Your task to perform on an android device: turn notification dots on Image 0: 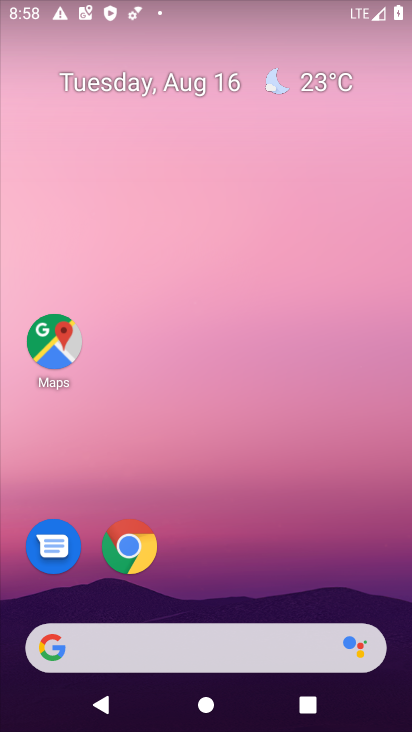
Step 0: drag from (221, 553) to (184, 14)
Your task to perform on an android device: turn notification dots on Image 1: 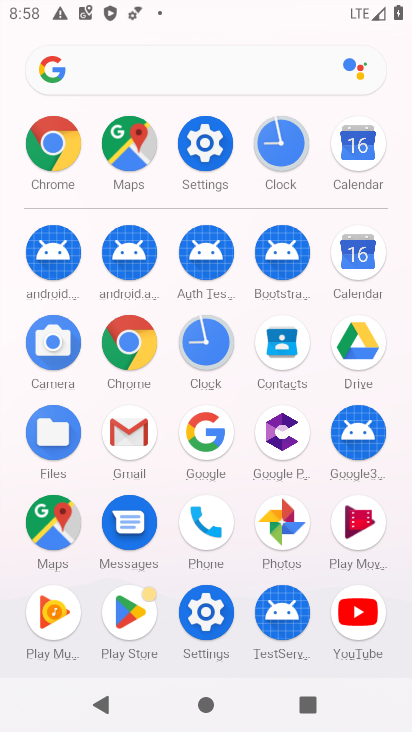
Step 1: click (204, 143)
Your task to perform on an android device: turn notification dots on Image 2: 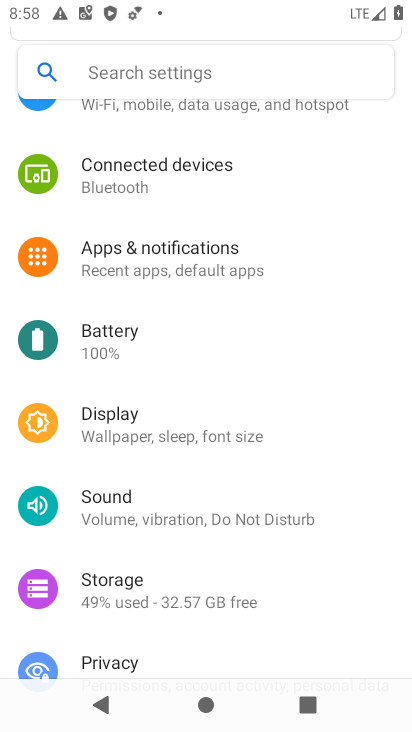
Step 2: click (214, 258)
Your task to perform on an android device: turn notification dots on Image 3: 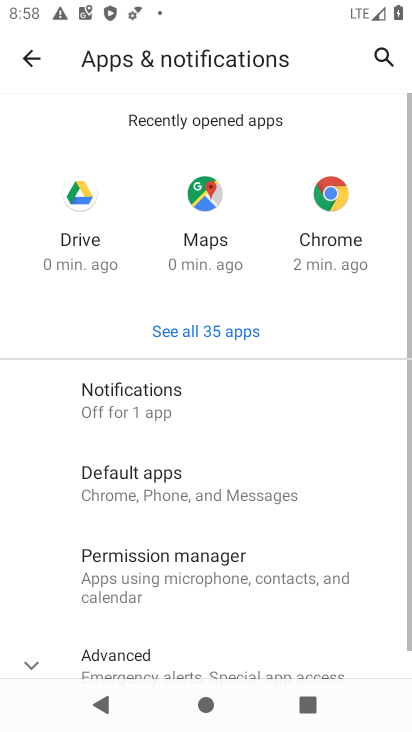
Step 3: click (152, 395)
Your task to perform on an android device: turn notification dots on Image 4: 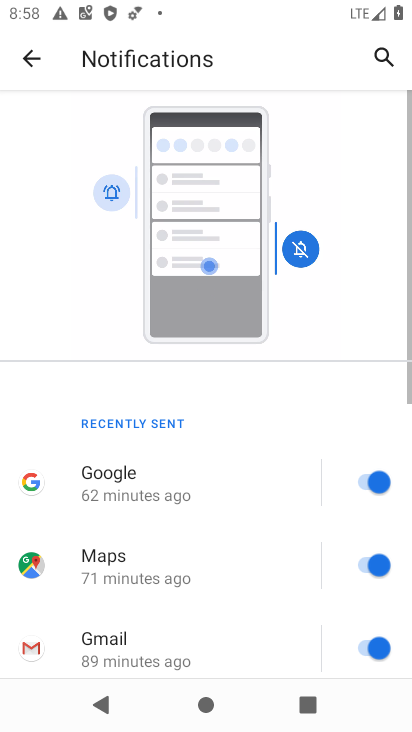
Step 4: drag from (248, 576) to (316, 16)
Your task to perform on an android device: turn notification dots on Image 5: 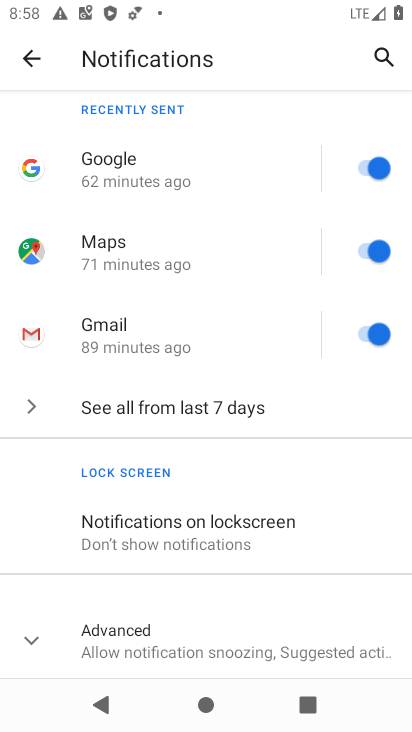
Step 5: click (32, 637)
Your task to perform on an android device: turn notification dots on Image 6: 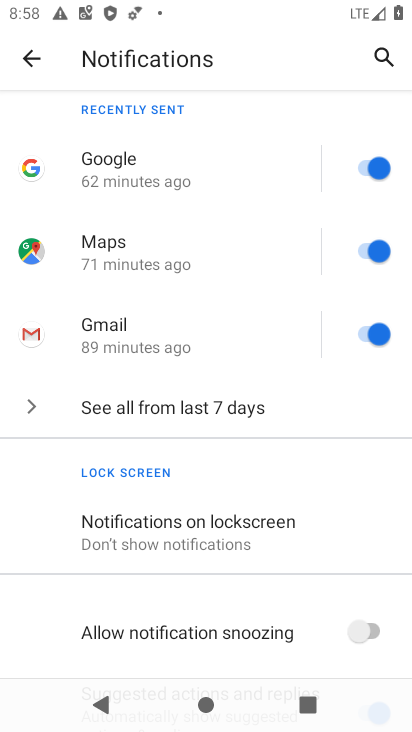
Step 6: task complete